Your task to perform on an android device: turn off location history Image 0: 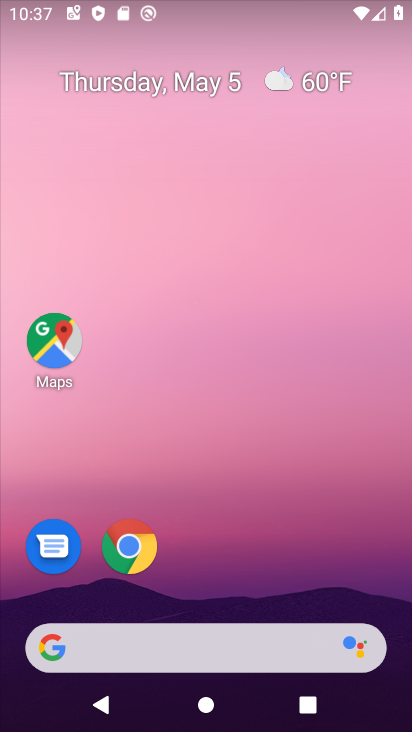
Step 0: drag from (260, 581) to (324, 37)
Your task to perform on an android device: turn off location history Image 1: 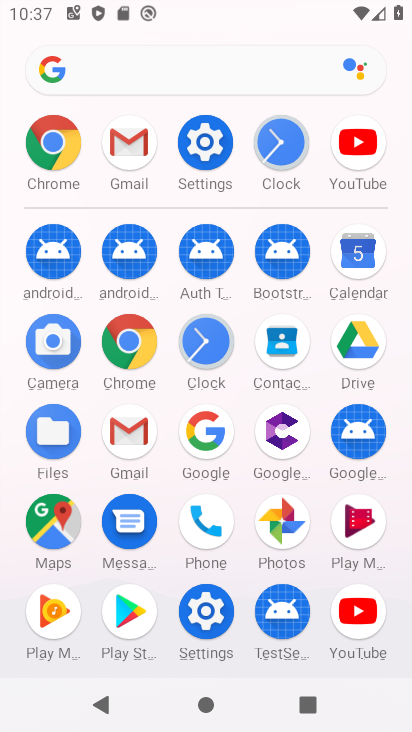
Step 1: click (202, 154)
Your task to perform on an android device: turn off location history Image 2: 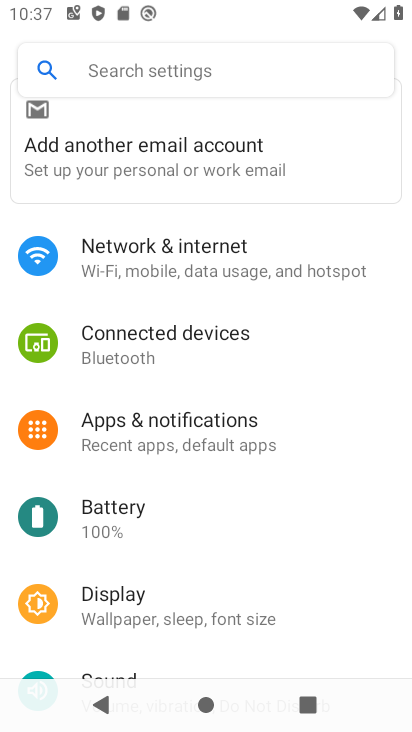
Step 2: drag from (146, 575) to (147, 468)
Your task to perform on an android device: turn off location history Image 3: 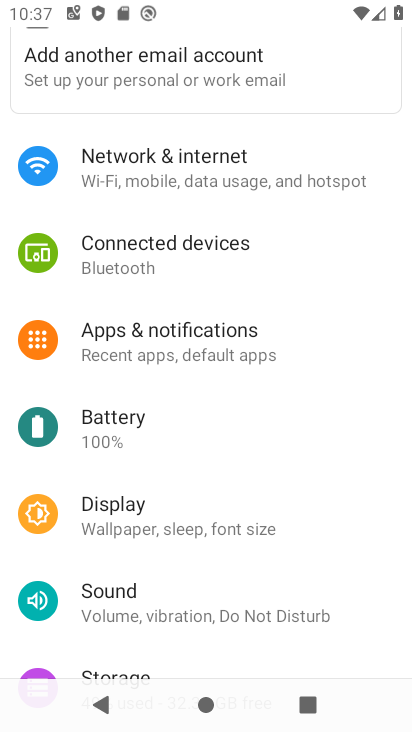
Step 3: drag from (145, 556) to (152, 399)
Your task to perform on an android device: turn off location history Image 4: 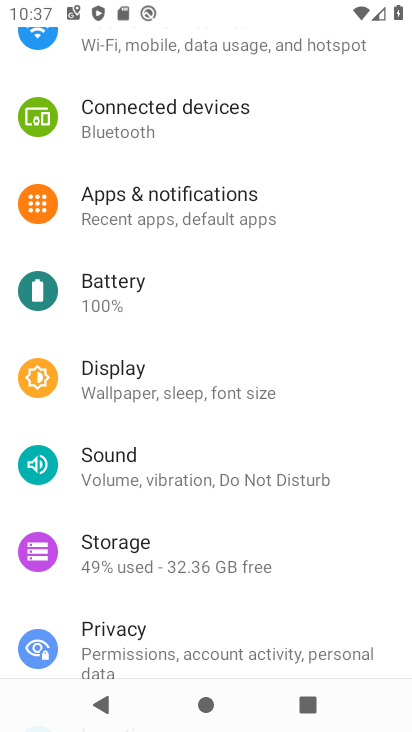
Step 4: drag from (90, 581) to (136, 415)
Your task to perform on an android device: turn off location history Image 5: 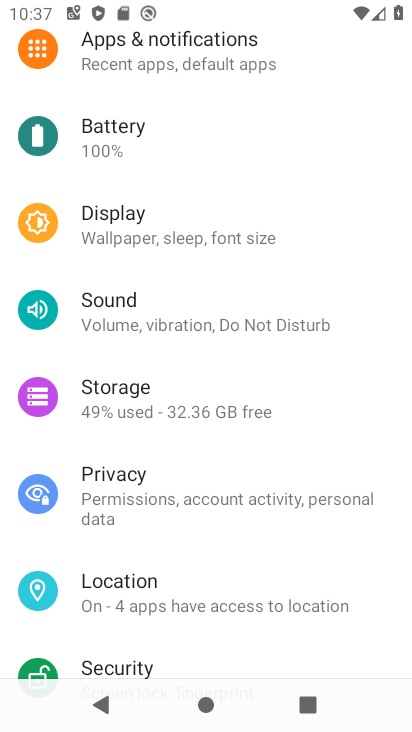
Step 5: click (131, 588)
Your task to perform on an android device: turn off location history Image 6: 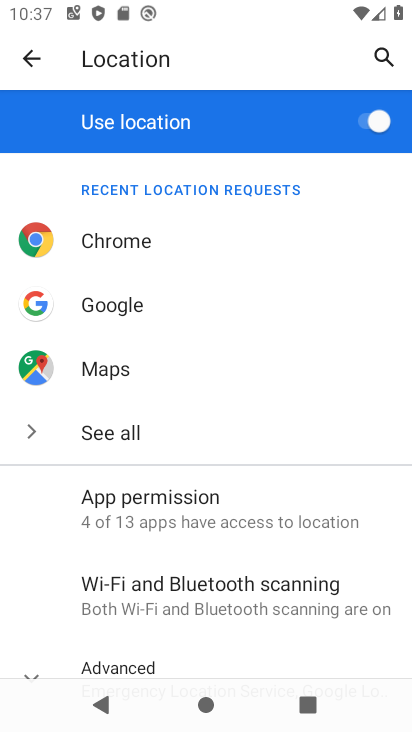
Step 6: drag from (198, 608) to (235, 380)
Your task to perform on an android device: turn off location history Image 7: 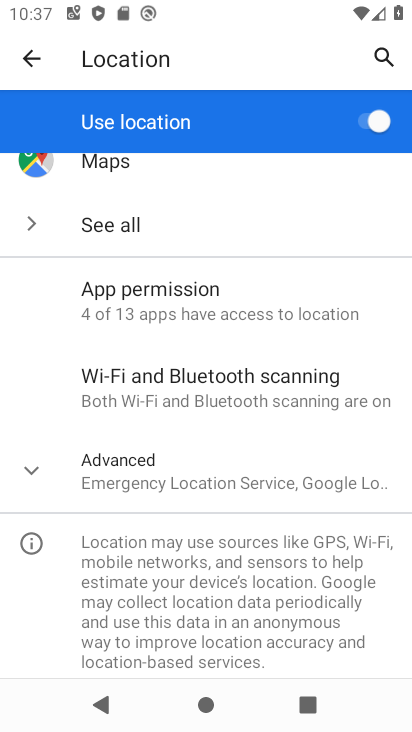
Step 7: click (174, 484)
Your task to perform on an android device: turn off location history Image 8: 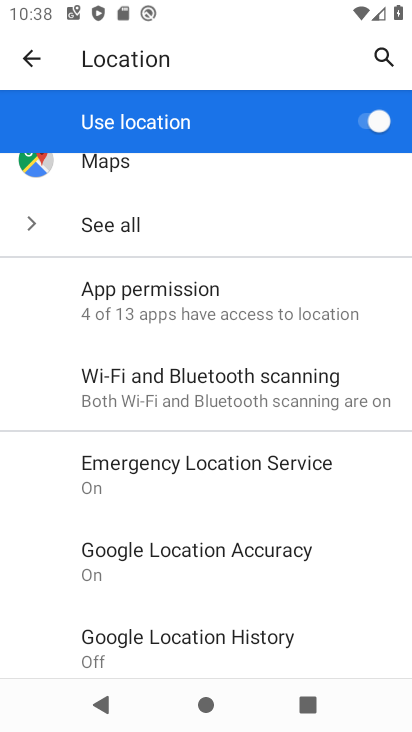
Step 8: click (161, 630)
Your task to perform on an android device: turn off location history Image 9: 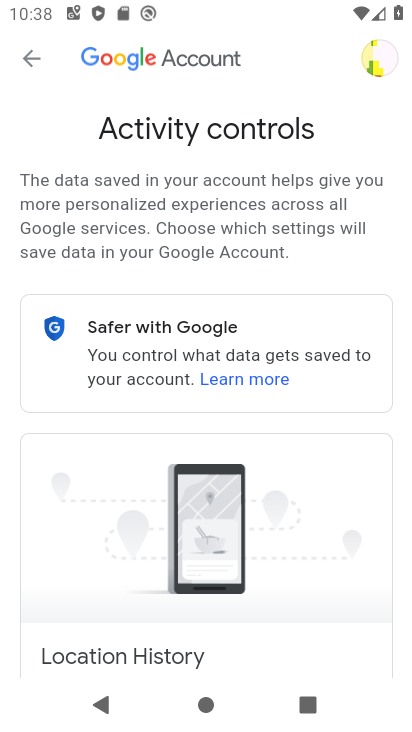
Step 9: task complete